Your task to perform on an android device: Do I have any events this weekend? Image 0: 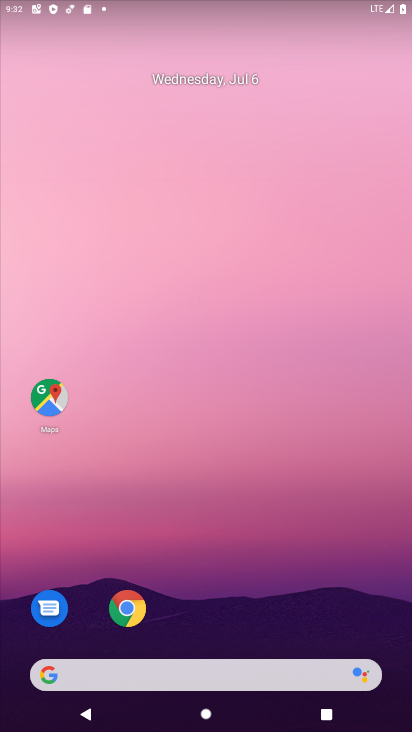
Step 0: drag from (218, 560) to (163, 149)
Your task to perform on an android device: Do I have any events this weekend? Image 1: 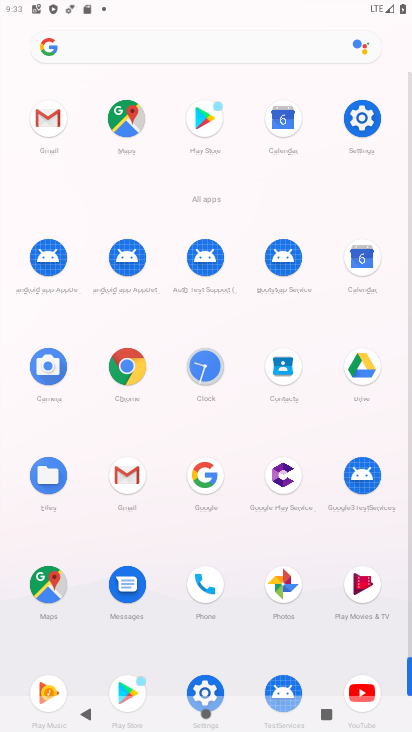
Step 1: click (359, 256)
Your task to perform on an android device: Do I have any events this weekend? Image 2: 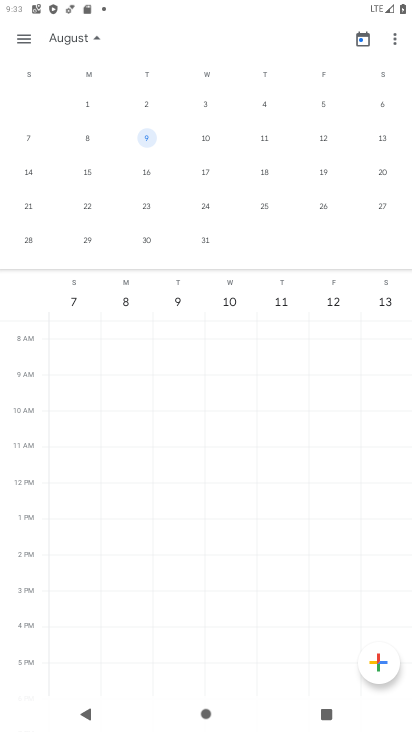
Step 2: drag from (43, 162) to (406, 55)
Your task to perform on an android device: Do I have any events this weekend? Image 3: 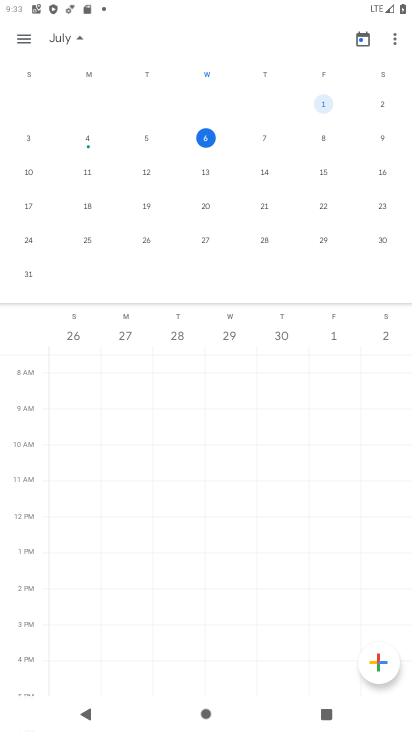
Step 3: click (198, 135)
Your task to perform on an android device: Do I have any events this weekend? Image 4: 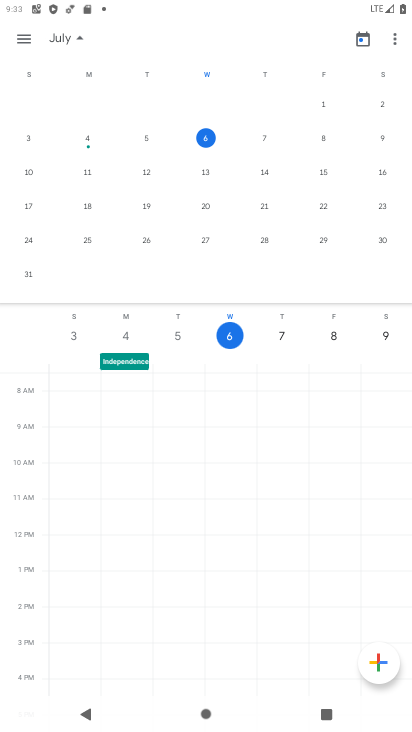
Step 4: task complete